Your task to perform on an android device: Add apple airpods to the cart on ebay Image 0: 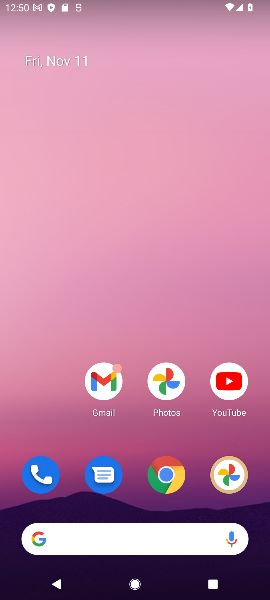
Step 0: drag from (113, 345) to (152, 116)
Your task to perform on an android device: Add apple airpods to the cart on ebay Image 1: 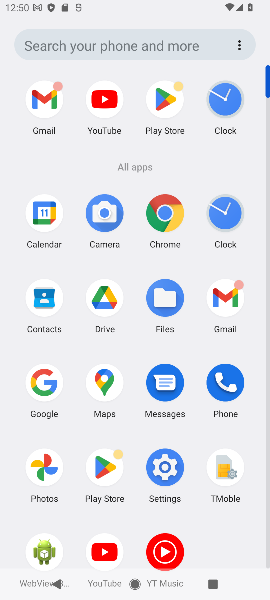
Step 1: click (162, 204)
Your task to perform on an android device: Add apple airpods to the cart on ebay Image 2: 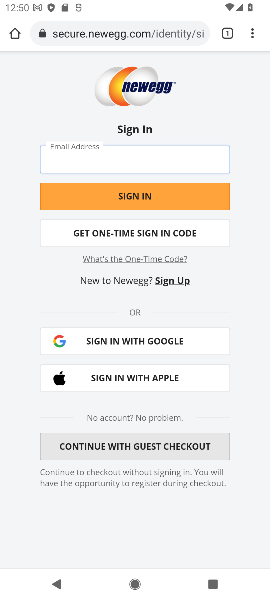
Step 2: click (135, 31)
Your task to perform on an android device: Add apple airpods to the cart on ebay Image 3: 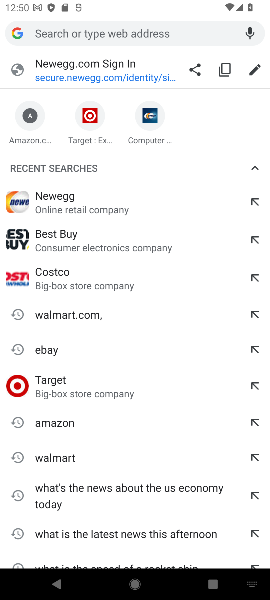
Step 3: type "ebay"
Your task to perform on an android device: Add apple airpods to the cart on ebay Image 4: 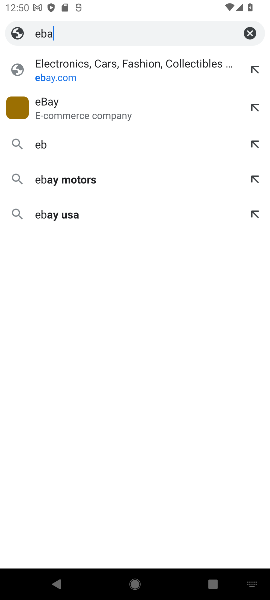
Step 4: press enter
Your task to perform on an android device: Add apple airpods to the cart on ebay Image 5: 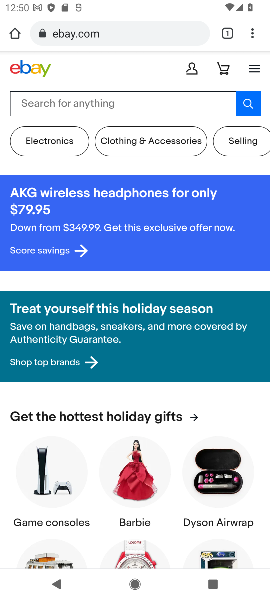
Step 5: click (99, 99)
Your task to perform on an android device: Add apple airpods to the cart on ebay Image 6: 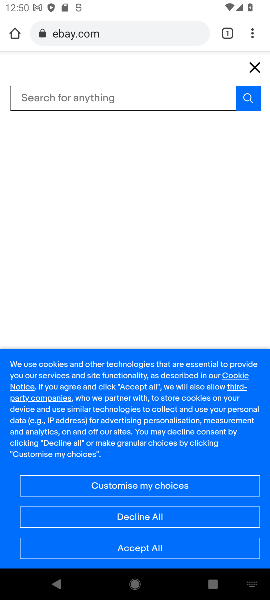
Step 6: type "airpods"
Your task to perform on an android device: Add apple airpods to the cart on ebay Image 7: 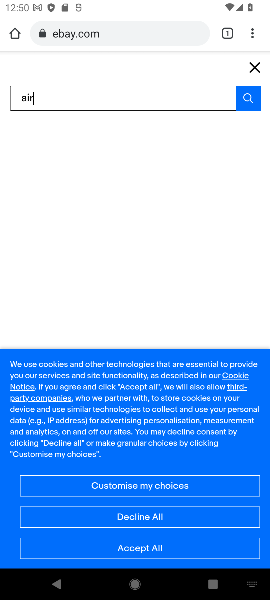
Step 7: press enter
Your task to perform on an android device: Add apple airpods to the cart on ebay Image 8: 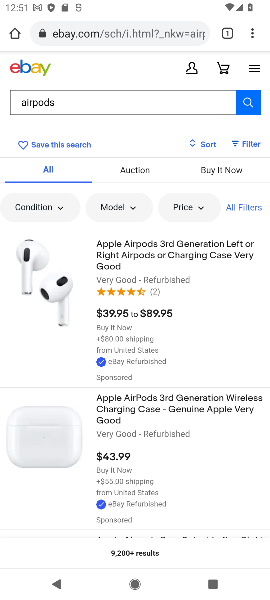
Step 8: click (130, 252)
Your task to perform on an android device: Add apple airpods to the cart on ebay Image 9: 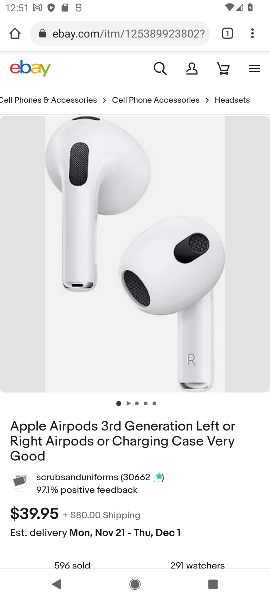
Step 9: drag from (163, 480) to (205, 231)
Your task to perform on an android device: Add apple airpods to the cart on ebay Image 10: 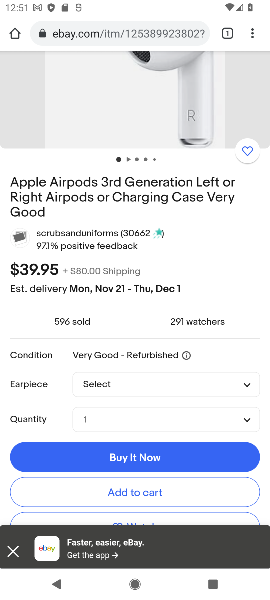
Step 10: click (149, 495)
Your task to perform on an android device: Add apple airpods to the cart on ebay Image 11: 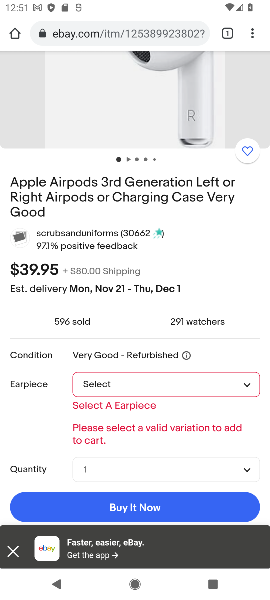
Step 11: click (166, 382)
Your task to perform on an android device: Add apple airpods to the cart on ebay Image 12: 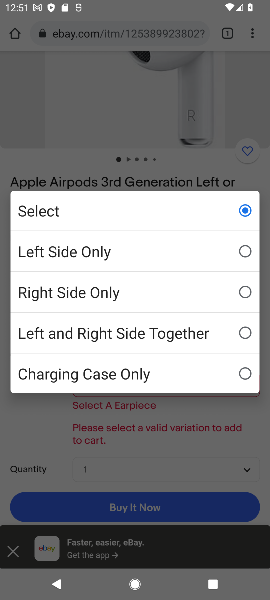
Step 12: click (110, 325)
Your task to perform on an android device: Add apple airpods to the cart on ebay Image 13: 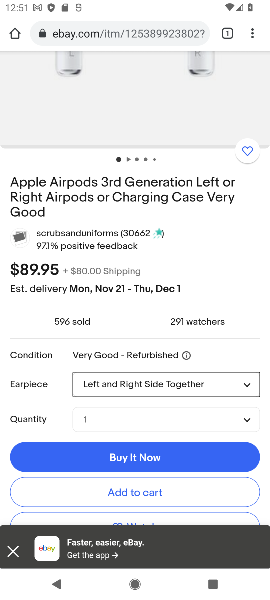
Step 13: click (136, 493)
Your task to perform on an android device: Add apple airpods to the cart on ebay Image 14: 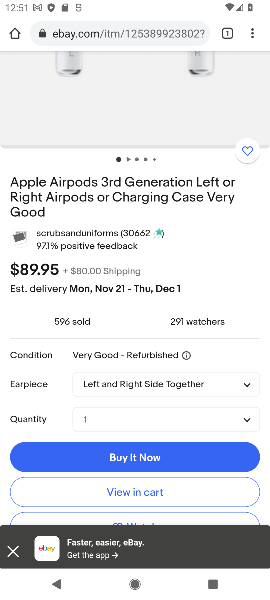
Step 14: task complete